Your task to perform on an android device: Turn off notifications for the Google Maps app Image 0: 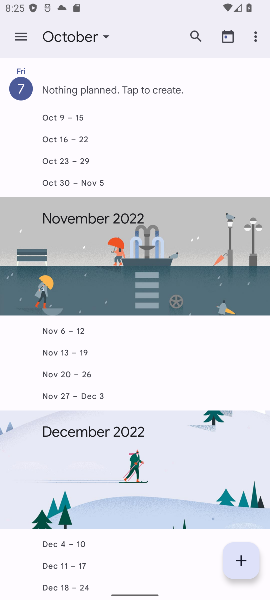
Step 0: press home button
Your task to perform on an android device: Turn off notifications for the Google Maps app Image 1: 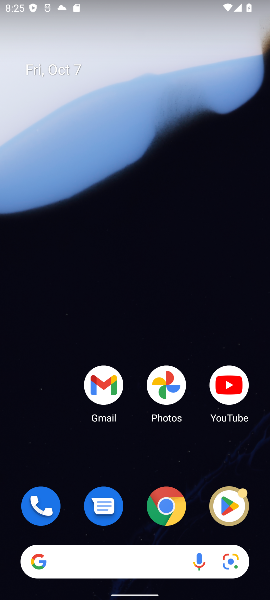
Step 1: drag from (137, 553) to (176, 80)
Your task to perform on an android device: Turn off notifications for the Google Maps app Image 2: 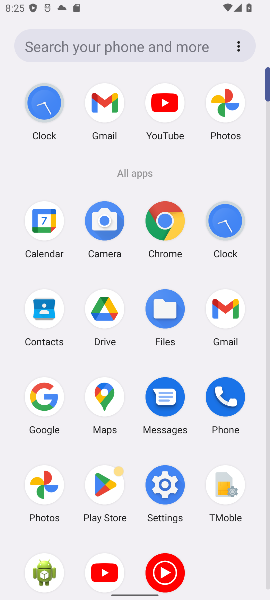
Step 2: click (101, 401)
Your task to perform on an android device: Turn off notifications for the Google Maps app Image 3: 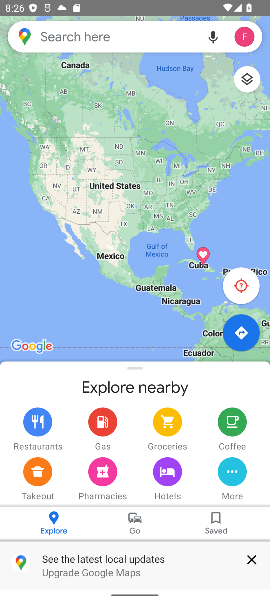
Step 3: click (25, 33)
Your task to perform on an android device: Turn off notifications for the Google Maps app Image 4: 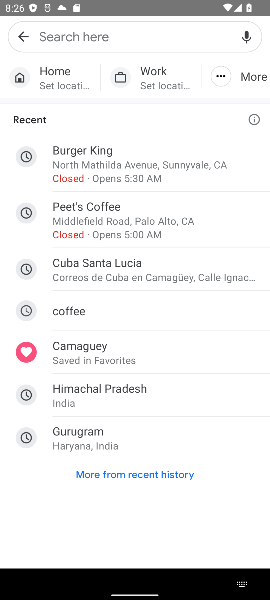
Step 4: click (19, 38)
Your task to perform on an android device: Turn off notifications for the Google Maps app Image 5: 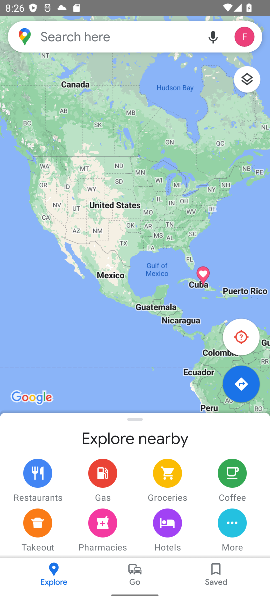
Step 5: click (242, 37)
Your task to perform on an android device: Turn off notifications for the Google Maps app Image 6: 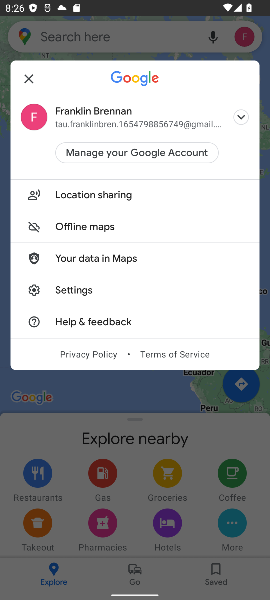
Step 6: click (88, 292)
Your task to perform on an android device: Turn off notifications for the Google Maps app Image 7: 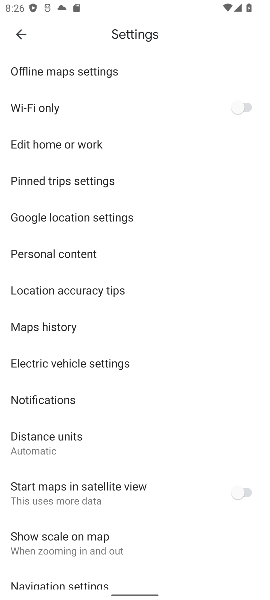
Step 7: drag from (109, 460) to (233, 112)
Your task to perform on an android device: Turn off notifications for the Google Maps app Image 8: 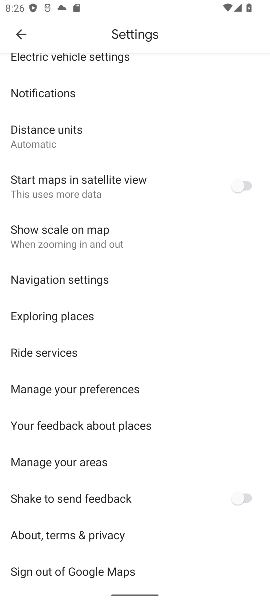
Step 8: drag from (197, 417) to (249, 184)
Your task to perform on an android device: Turn off notifications for the Google Maps app Image 9: 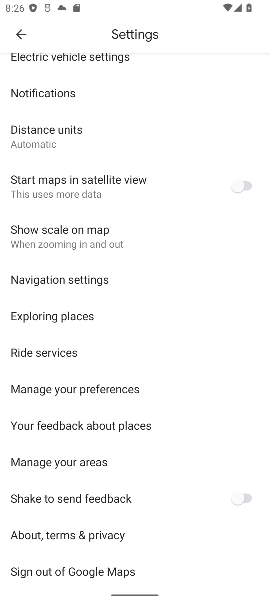
Step 9: click (41, 92)
Your task to perform on an android device: Turn off notifications for the Google Maps app Image 10: 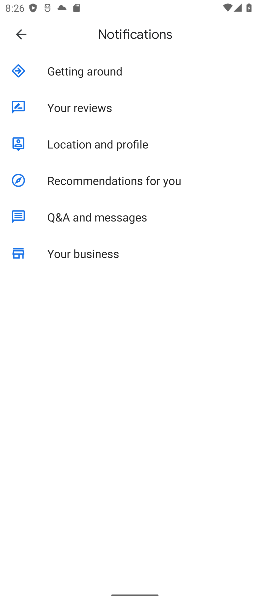
Step 10: click (65, 286)
Your task to perform on an android device: Turn off notifications for the Google Maps app Image 11: 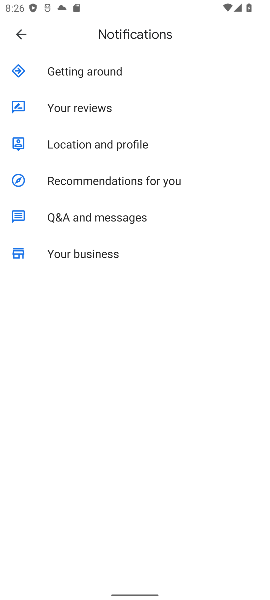
Step 11: task complete